Your task to perform on an android device: open app "Move to iOS" Image 0: 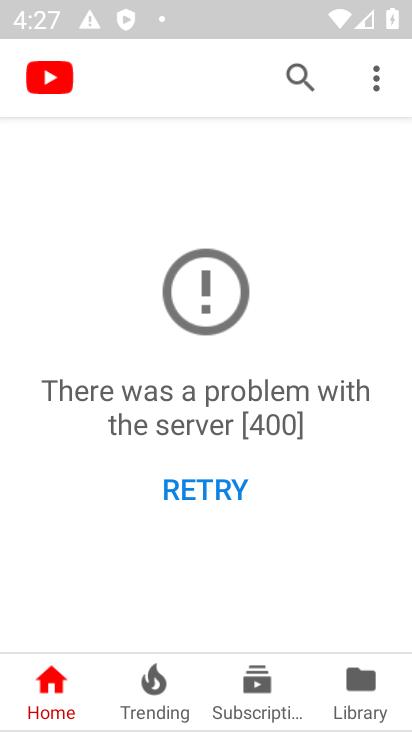
Step 0: press back button
Your task to perform on an android device: open app "Move to iOS" Image 1: 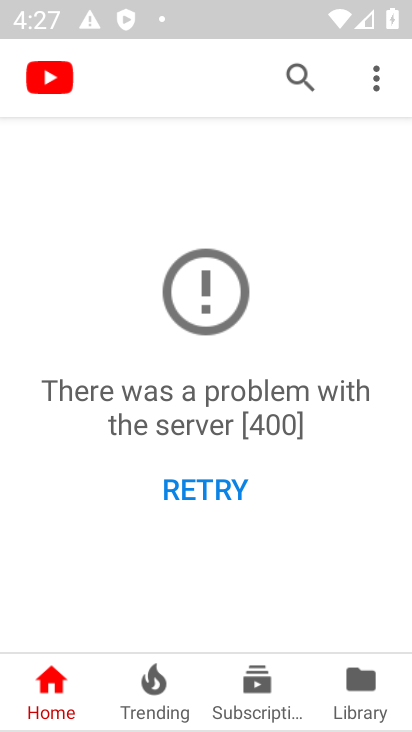
Step 1: press back button
Your task to perform on an android device: open app "Move to iOS" Image 2: 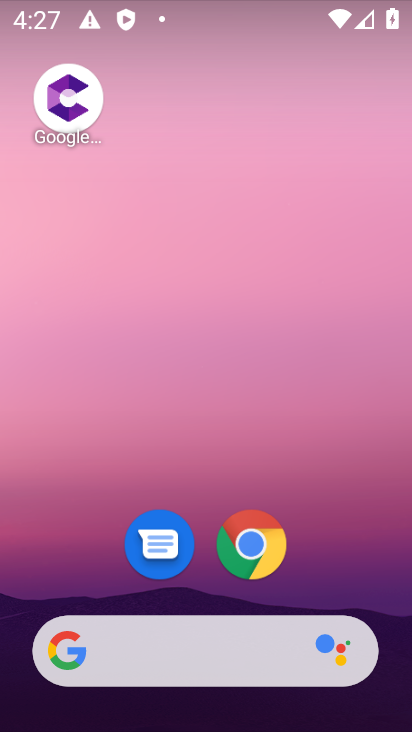
Step 2: drag from (185, 551) to (125, 391)
Your task to perform on an android device: open app "Move to iOS" Image 3: 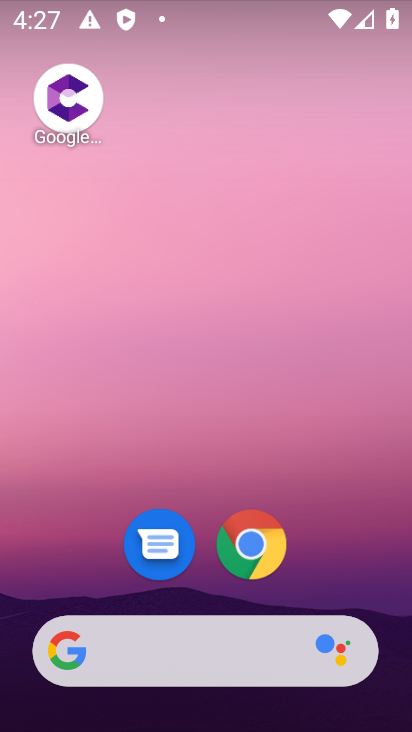
Step 3: drag from (218, 594) to (161, 237)
Your task to perform on an android device: open app "Move to iOS" Image 4: 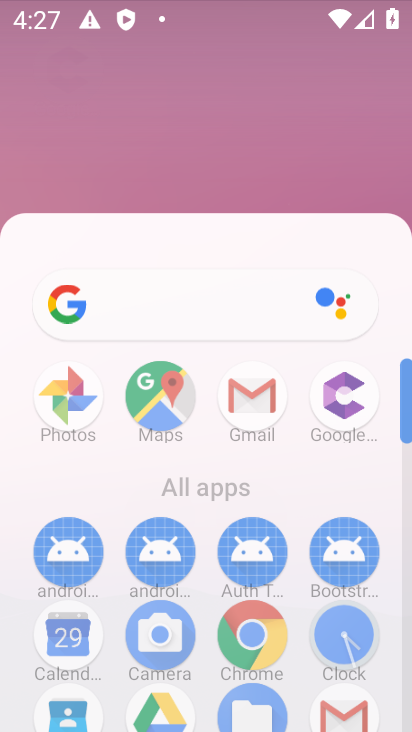
Step 4: drag from (197, 552) to (127, 201)
Your task to perform on an android device: open app "Move to iOS" Image 5: 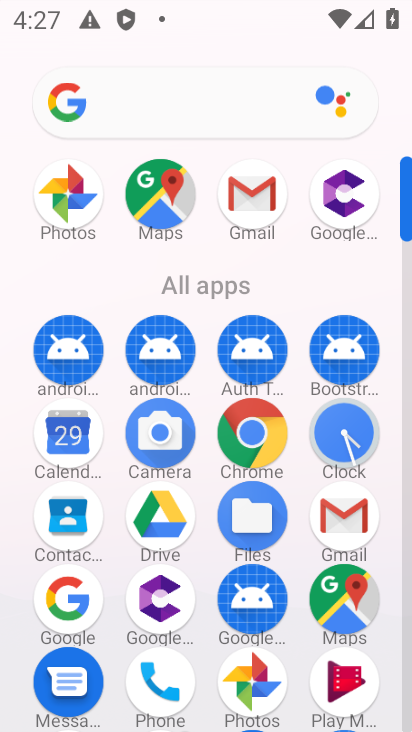
Step 5: drag from (241, 552) to (194, 154)
Your task to perform on an android device: open app "Move to iOS" Image 6: 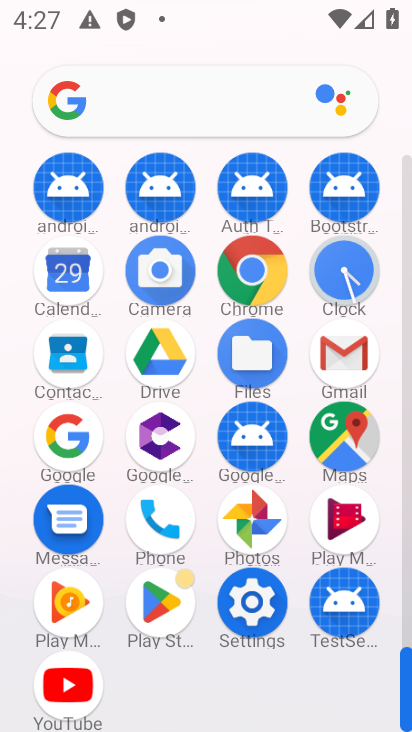
Step 6: click (167, 603)
Your task to perform on an android device: open app "Move to iOS" Image 7: 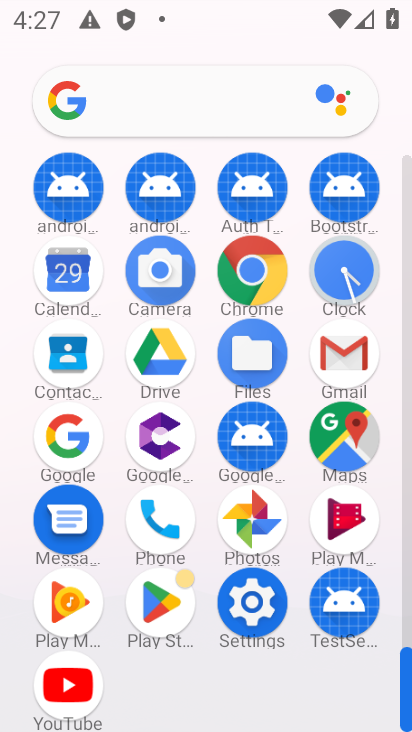
Step 7: click (167, 603)
Your task to perform on an android device: open app "Move to iOS" Image 8: 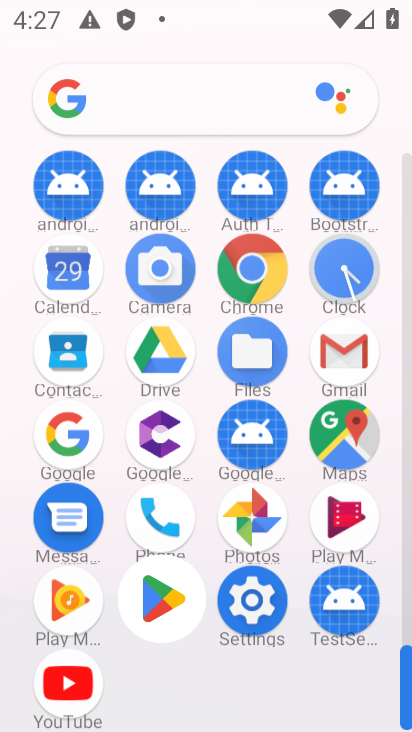
Step 8: click (157, 592)
Your task to perform on an android device: open app "Move to iOS" Image 9: 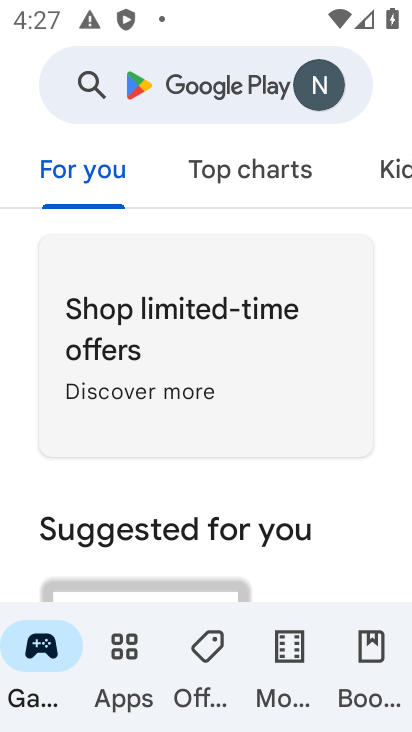
Step 9: click (214, 84)
Your task to perform on an android device: open app "Move to iOS" Image 10: 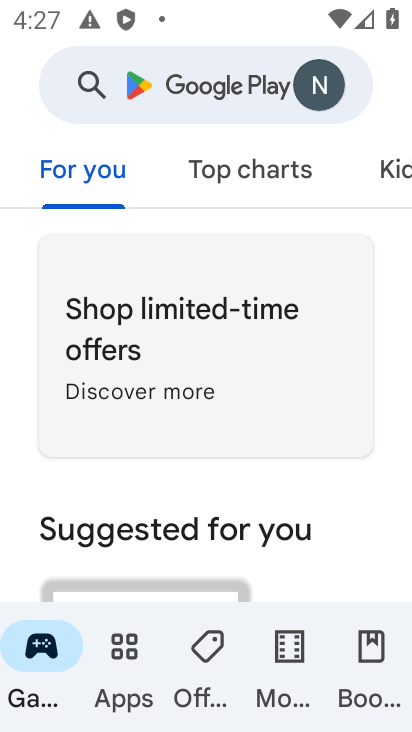
Step 10: click (208, 94)
Your task to perform on an android device: open app "Move to iOS" Image 11: 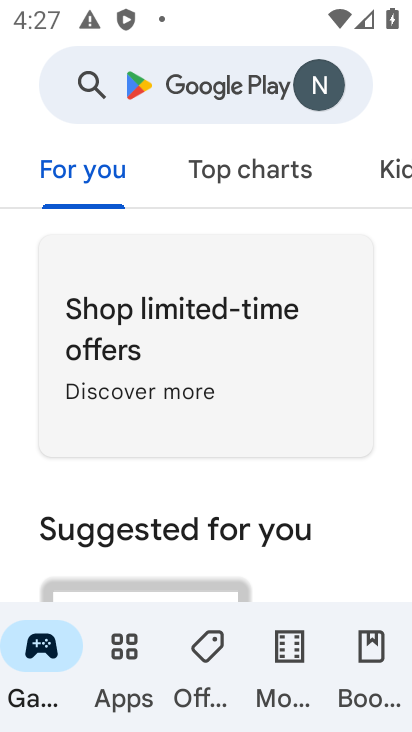
Step 11: click (197, 84)
Your task to perform on an android device: open app "Move to iOS" Image 12: 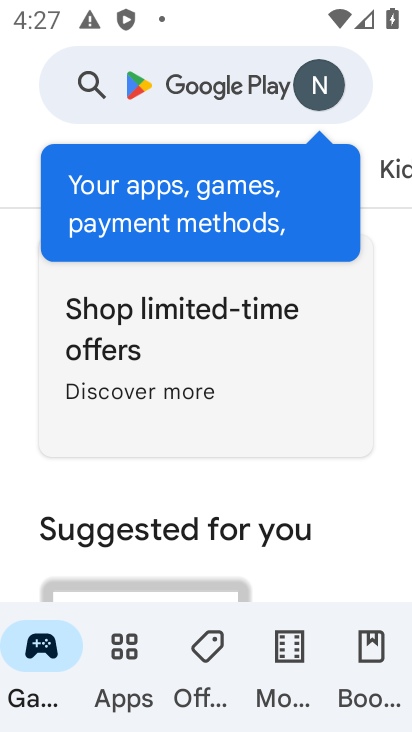
Step 12: click (198, 84)
Your task to perform on an android device: open app "Move to iOS" Image 13: 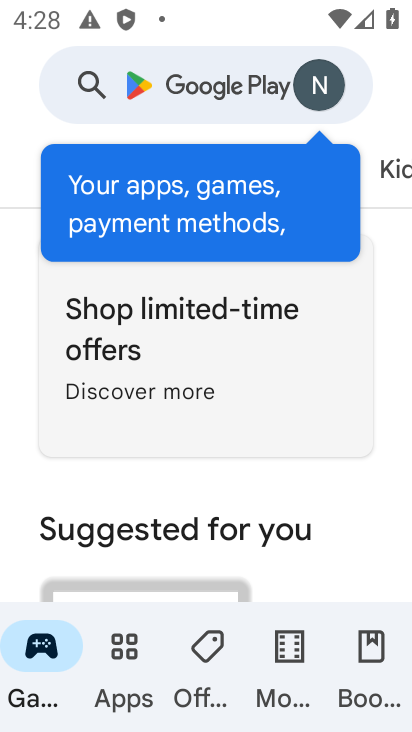
Step 13: click (198, 84)
Your task to perform on an android device: open app "Move to iOS" Image 14: 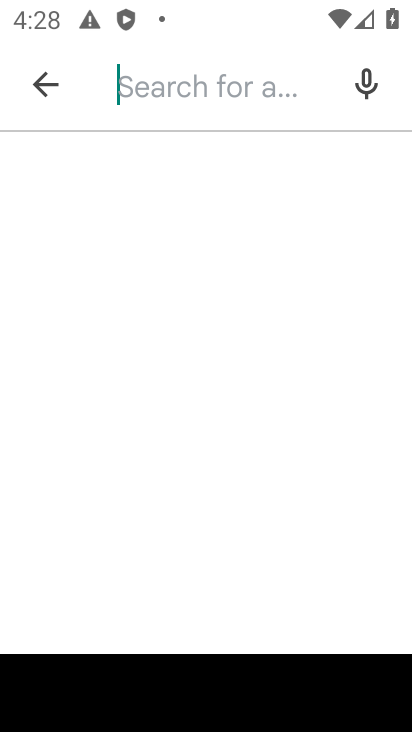
Step 14: type "Move to iOS"
Your task to perform on an android device: open app "Move to iOS" Image 15: 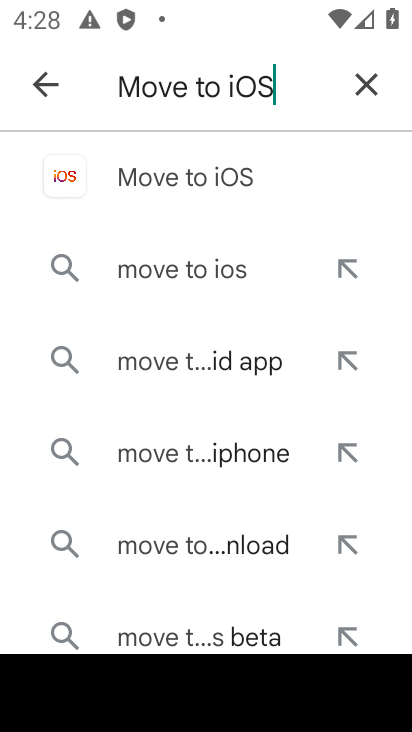
Step 15: click (209, 175)
Your task to perform on an android device: open app "Move to iOS" Image 16: 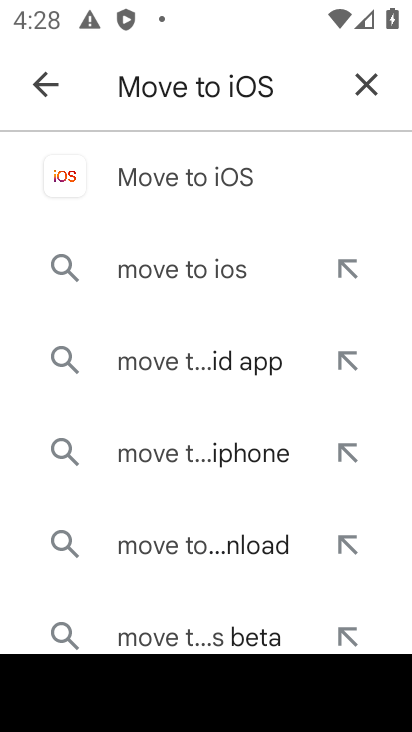
Step 16: click (209, 177)
Your task to perform on an android device: open app "Move to iOS" Image 17: 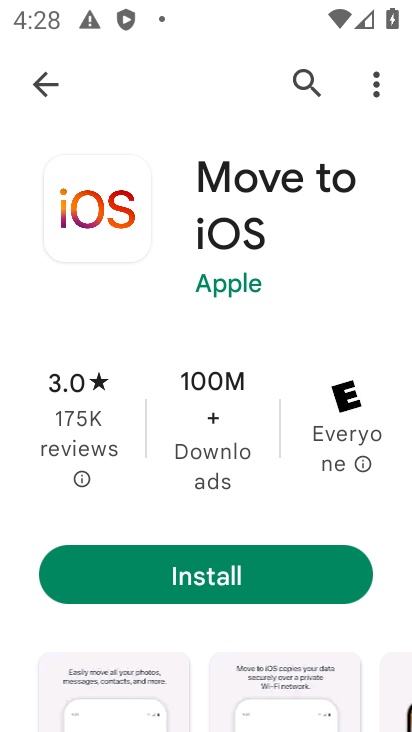
Step 17: click (229, 572)
Your task to perform on an android device: open app "Move to iOS" Image 18: 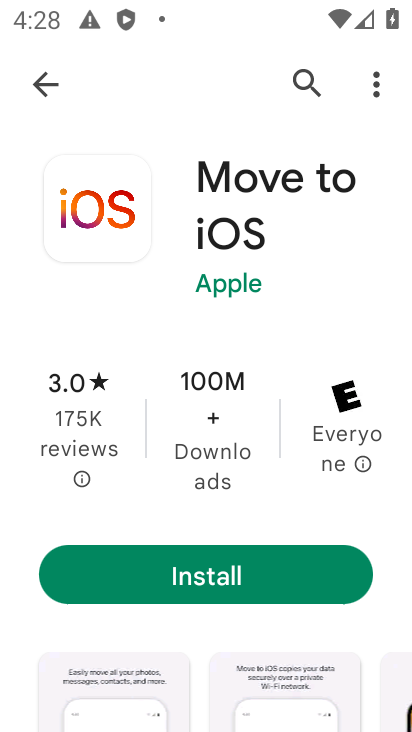
Step 18: click (281, 571)
Your task to perform on an android device: open app "Move to iOS" Image 19: 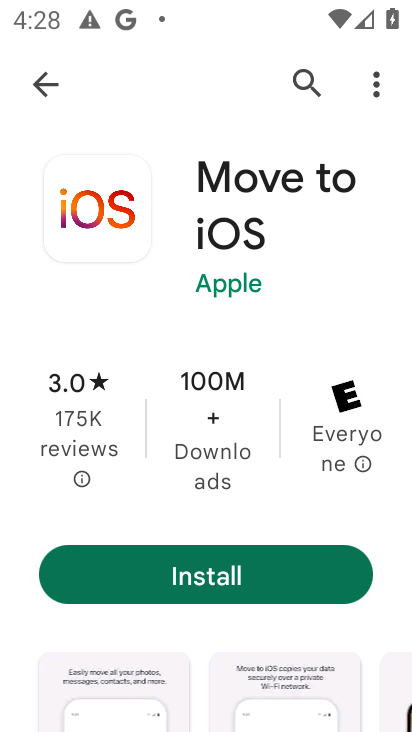
Step 19: click (279, 568)
Your task to perform on an android device: open app "Move to iOS" Image 20: 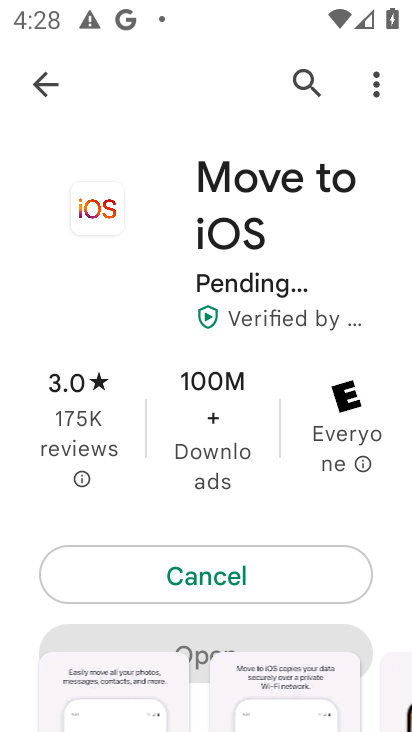
Step 20: click (283, 565)
Your task to perform on an android device: open app "Move to iOS" Image 21: 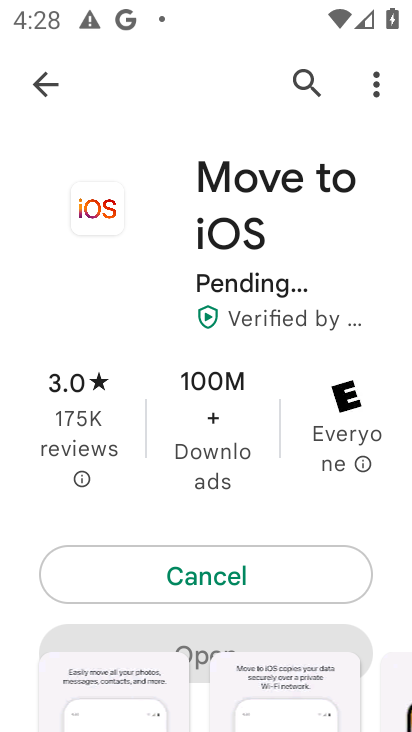
Step 21: click (284, 564)
Your task to perform on an android device: open app "Move to iOS" Image 22: 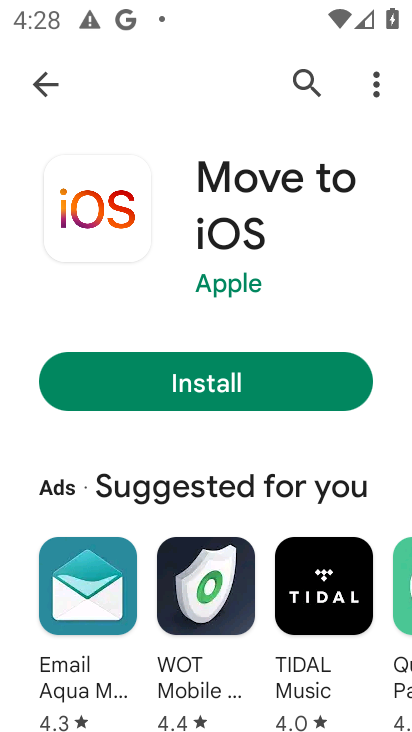
Step 22: click (248, 584)
Your task to perform on an android device: open app "Move to iOS" Image 23: 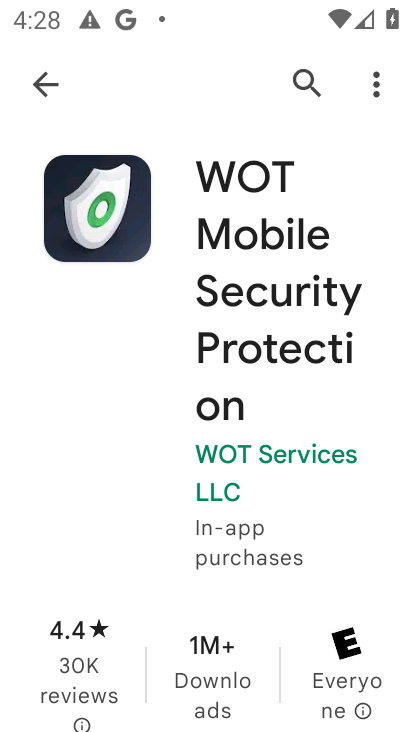
Step 23: click (233, 362)
Your task to perform on an android device: open app "Move to iOS" Image 24: 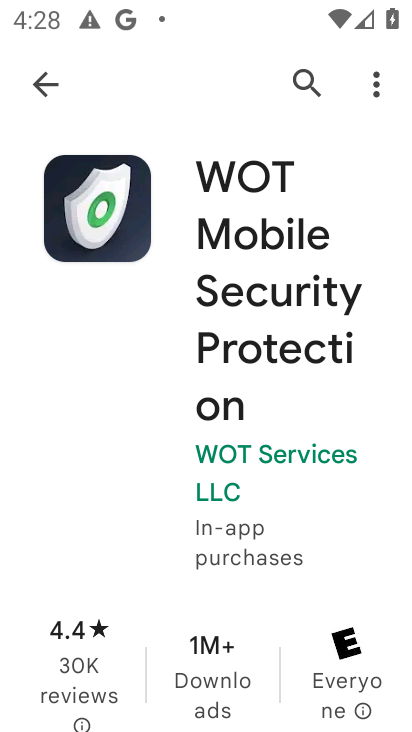
Step 24: click (37, 73)
Your task to perform on an android device: open app "Move to iOS" Image 25: 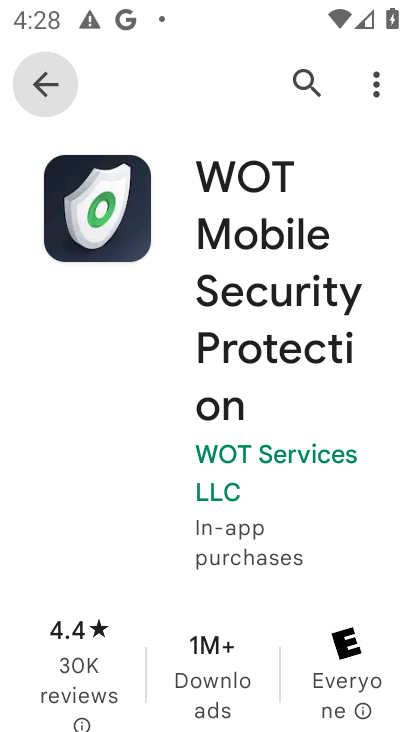
Step 25: click (39, 74)
Your task to perform on an android device: open app "Move to iOS" Image 26: 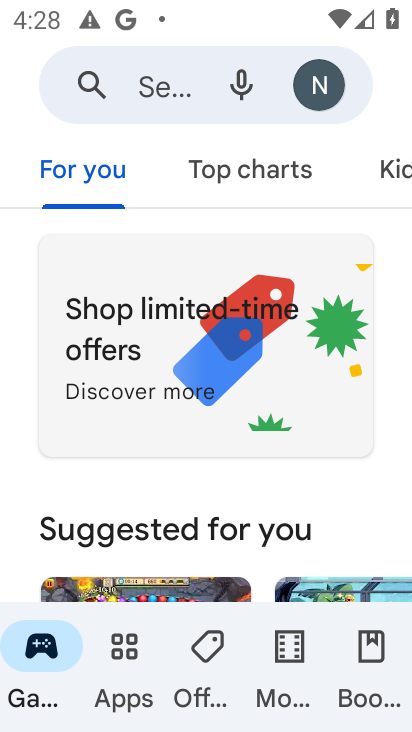
Step 26: click (150, 62)
Your task to perform on an android device: open app "Move to iOS" Image 27: 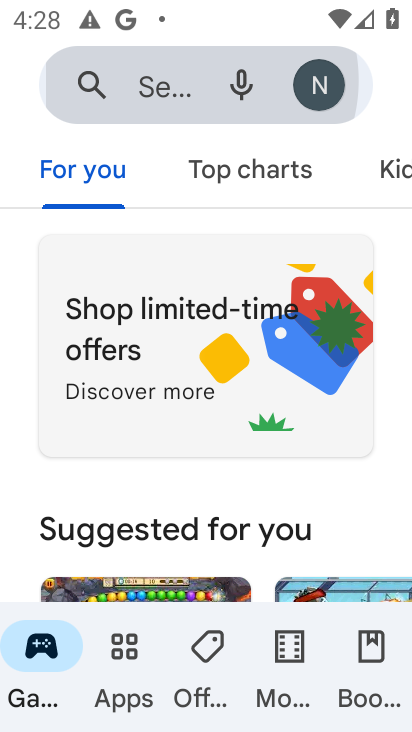
Step 27: click (153, 71)
Your task to perform on an android device: open app "Move to iOS" Image 28: 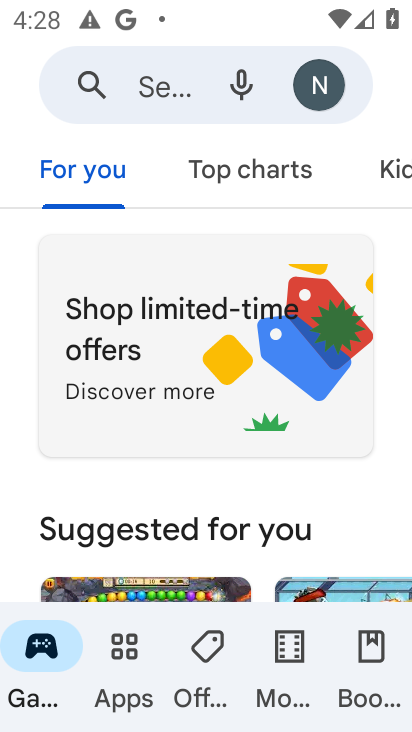
Step 28: click (153, 72)
Your task to perform on an android device: open app "Move to iOS" Image 29: 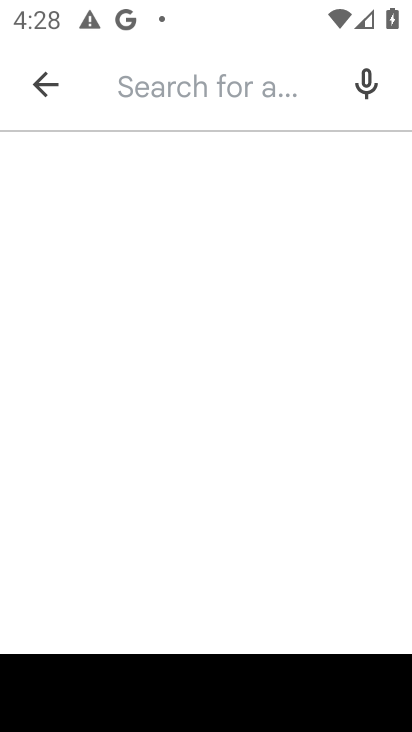
Step 29: type "Move to Ios"
Your task to perform on an android device: open app "Move to iOS" Image 30: 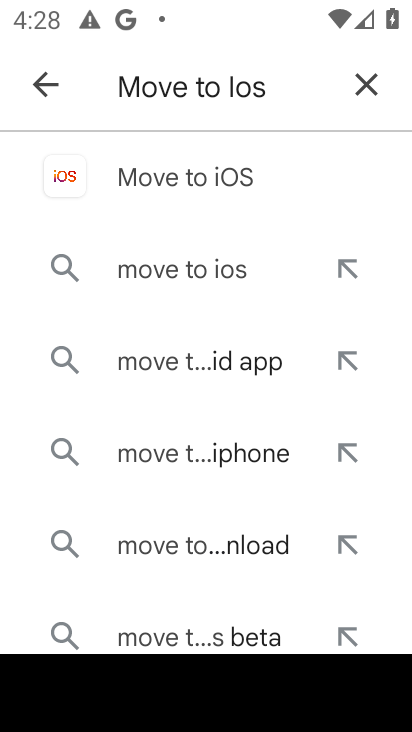
Step 30: click (119, 180)
Your task to perform on an android device: open app "Move to iOS" Image 31: 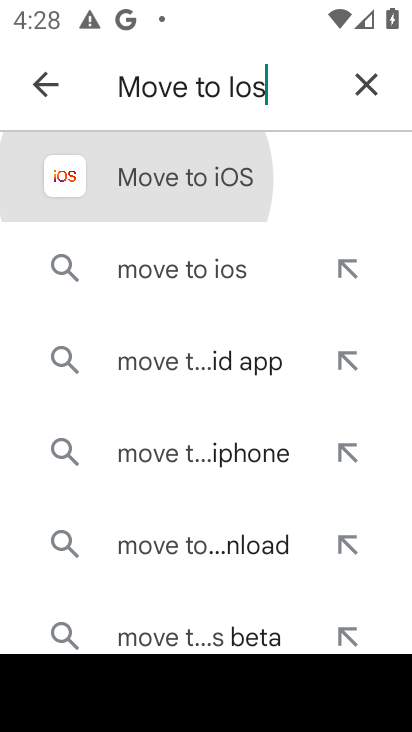
Step 31: click (121, 182)
Your task to perform on an android device: open app "Move to iOS" Image 32: 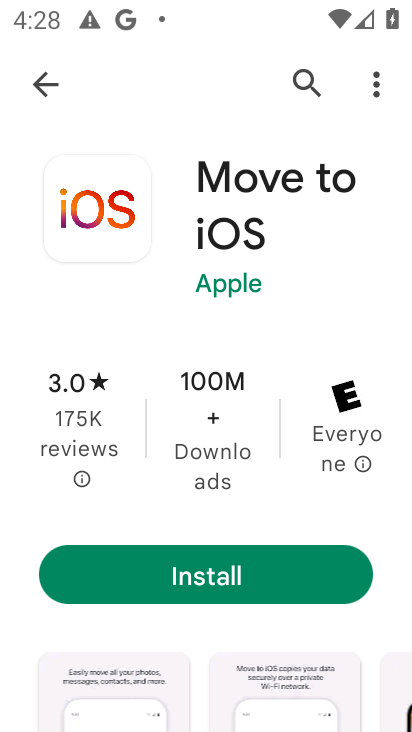
Step 32: click (212, 575)
Your task to perform on an android device: open app "Move to iOS" Image 33: 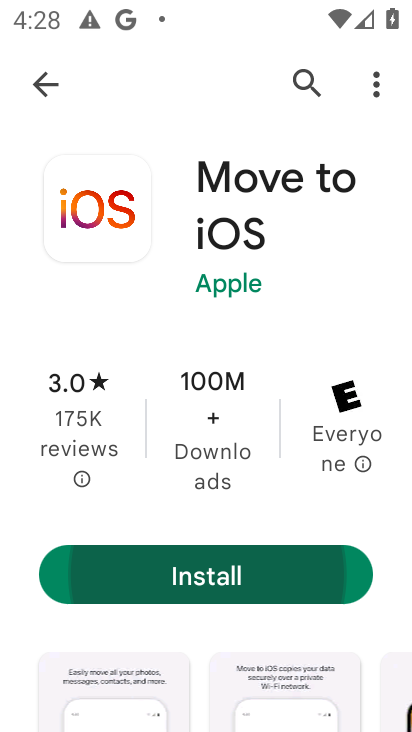
Step 33: click (212, 575)
Your task to perform on an android device: open app "Move to iOS" Image 34: 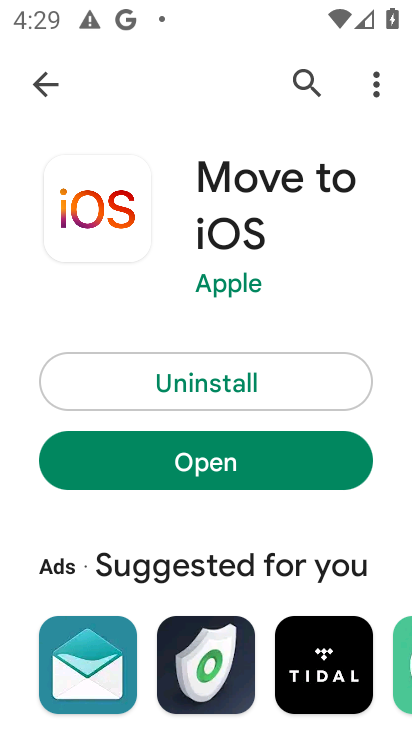
Step 34: click (221, 450)
Your task to perform on an android device: open app "Move to iOS" Image 35: 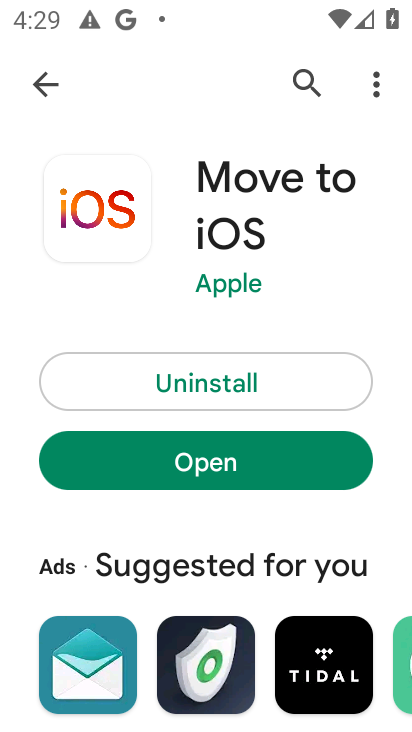
Step 35: click (221, 451)
Your task to perform on an android device: open app "Move to iOS" Image 36: 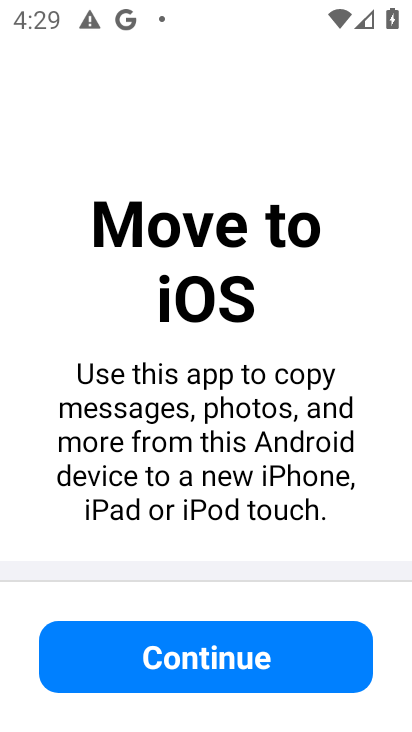
Step 36: click (209, 661)
Your task to perform on an android device: open app "Move to iOS" Image 37: 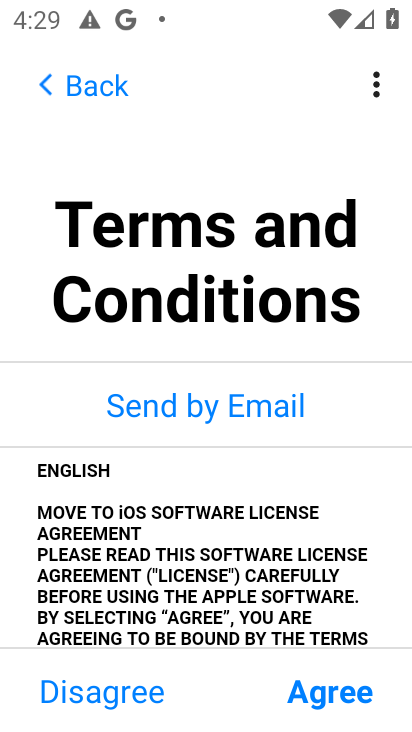
Step 37: click (322, 691)
Your task to perform on an android device: open app "Move to iOS" Image 38: 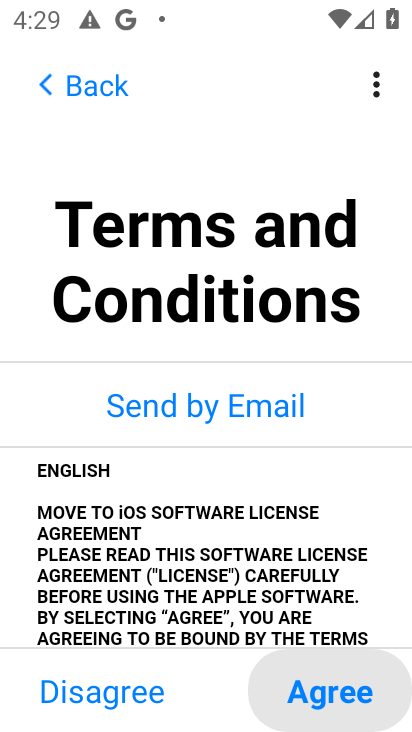
Step 38: click (321, 690)
Your task to perform on an android device: open app "Move to iOS" Image 39: 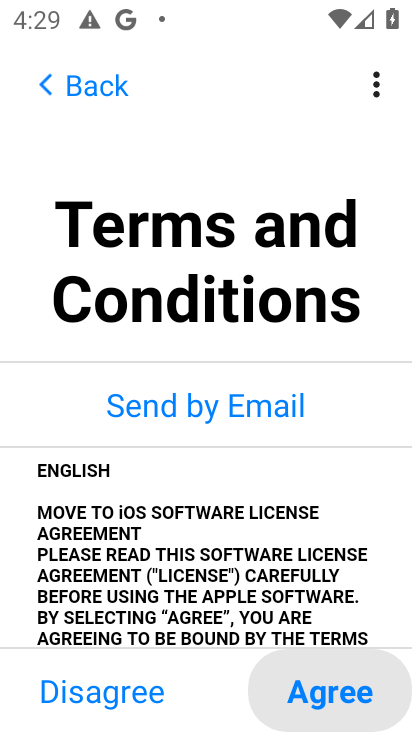
Step 39: click (321, 690)
Your task to perform on an android device: open app "Move to iOS" Image 40: 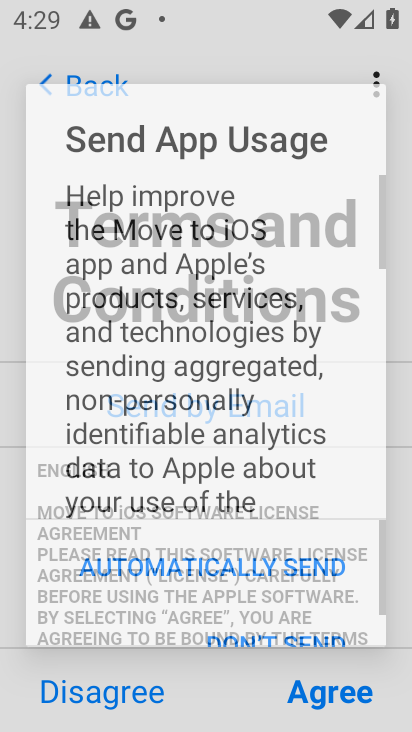
Step 40: click (321, 690)
Your task to perform on an android device: open app "Move to iOS" Image 41: 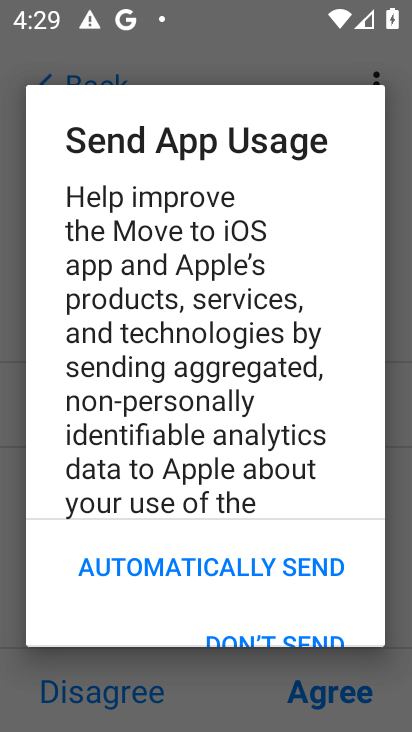
Step 41: click (254, 563)
Your task to perform on an android device: open app "Move to iOS" Image 42: 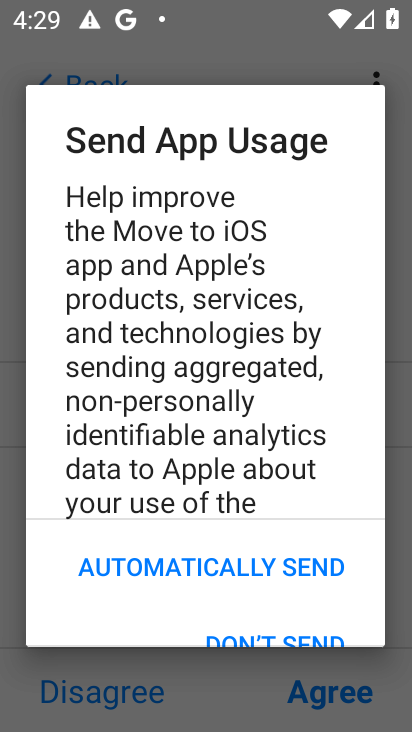
Step 42: click (255, 563)
Your task to perform on an android device: open app "Move to iOS" Image 43: 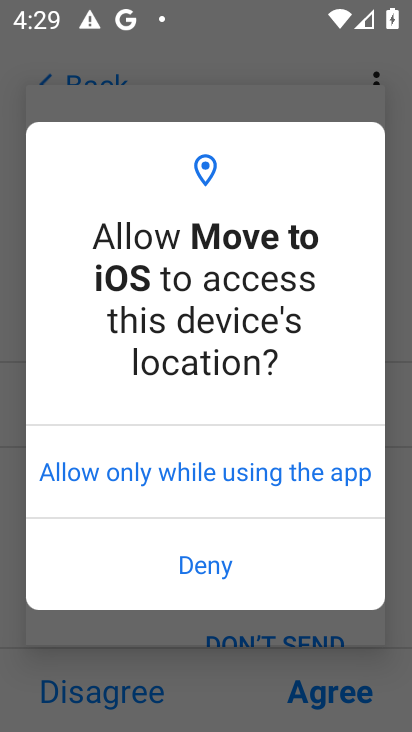
Step 43: click (247, 481)
Your task to perform on an android device: open app "Move to iOS" Image 44: 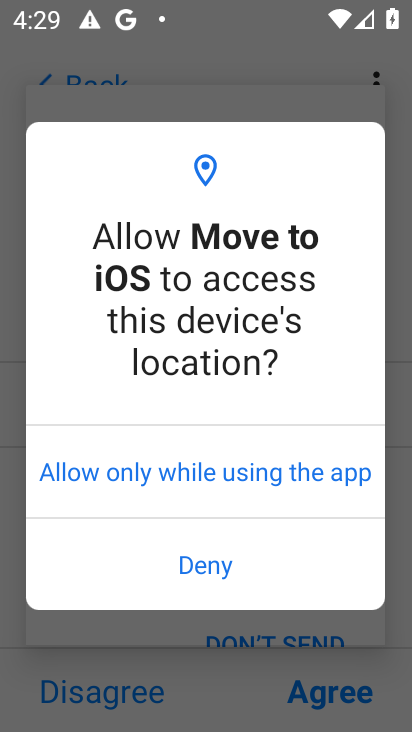
Step 44: click (248, 481)
Your task to perform on an android device: open app "Move to iOS" Image 45: 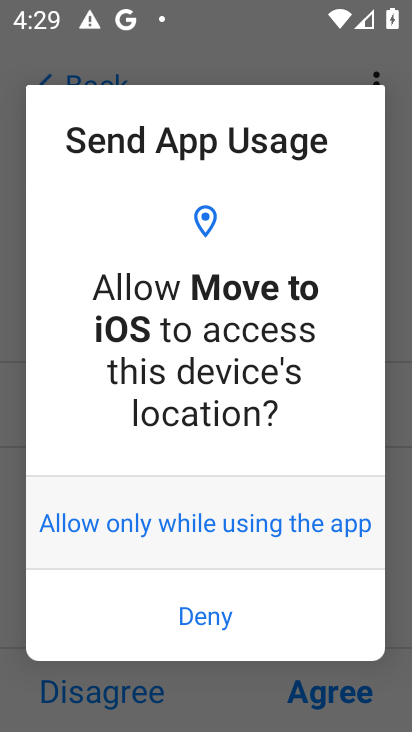
Step 45: click (252, 481)
Your task to perform on an android device: open app "Move to iOS" Image 46: 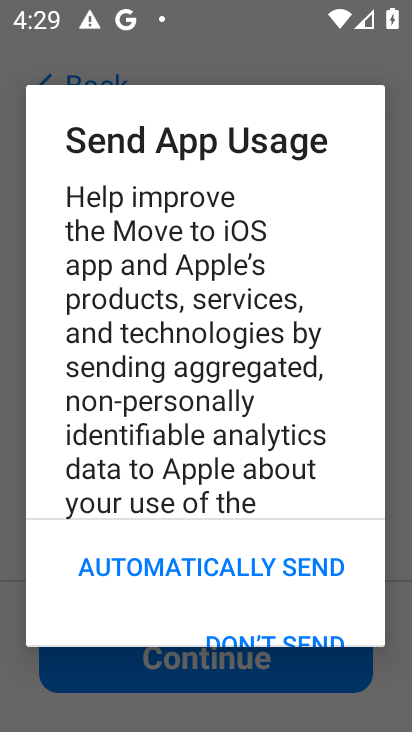
Step 46: click (271, 544)
Your task to perform on an android device: open app "Move to iOS" Image 47: 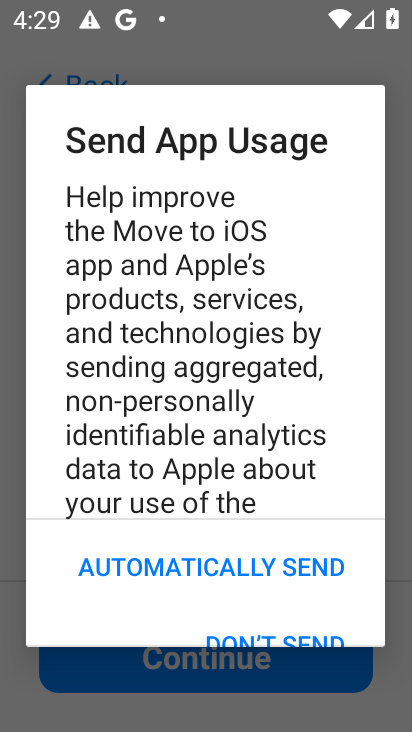
Step 47: click (271, 535)
Your task to perform on an android device: open app "Move to iOS" Image 48: 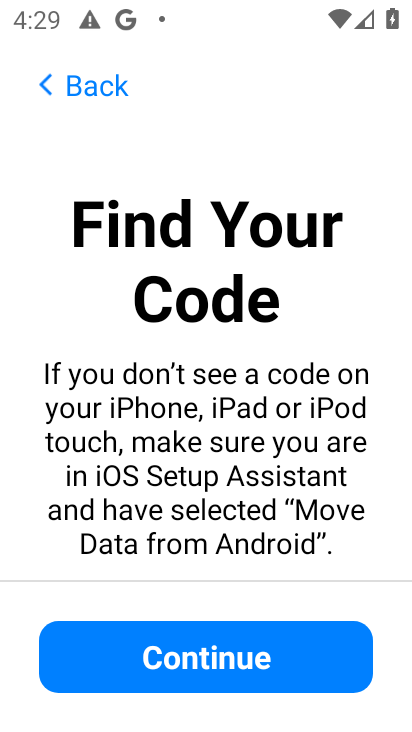
Step 48: click (211, 676)
Your task to perform on an android device: open app "Move to iOS" Image 49: 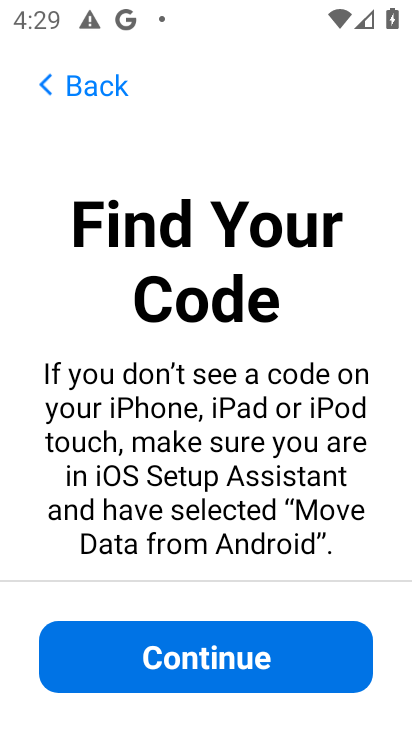
Step 49: click (223, 681)
Your task to perform on an android device: open app "Move to iOS" Image 50: 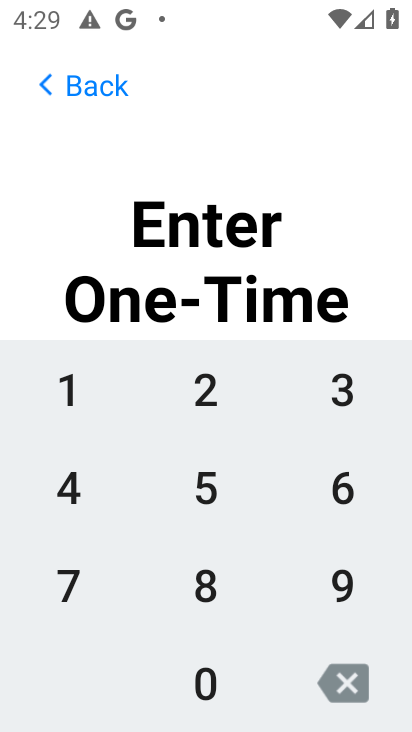
Step 50: click (223, 681)
Your task to perform on an android device: open app "Move to iOS" Image 51: 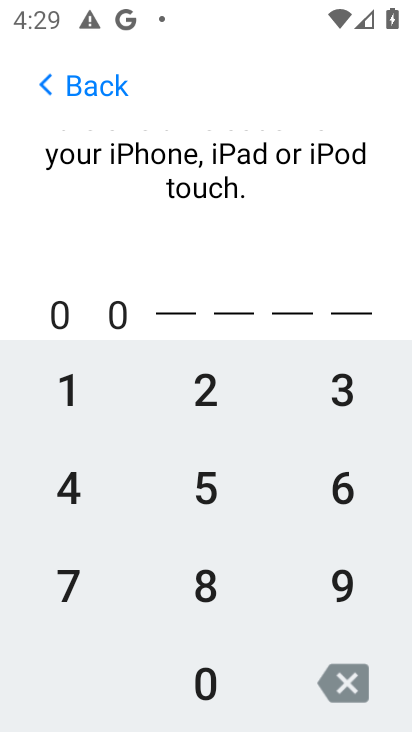
Step 51: task complete